Your task to perform on an android device: toggle priority inbox in the gmail app Image 0: 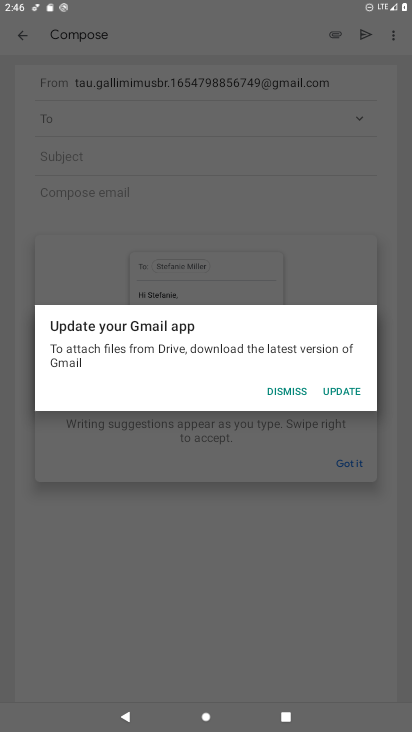
Step 0: press home button
Your task to perform on an android device: toggle priority inbox in the gmail app Image 1: 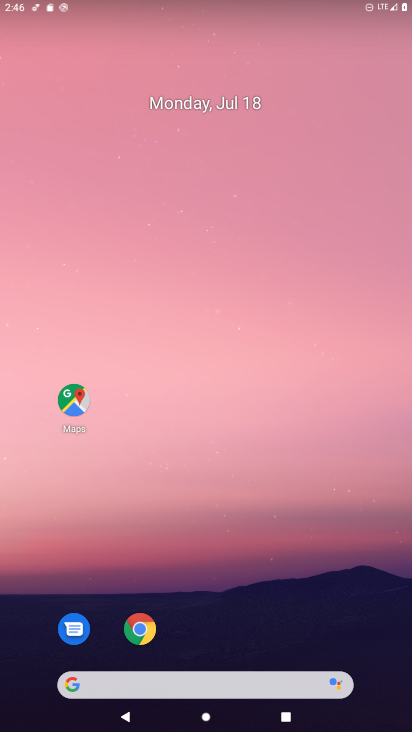
Step 1: drag from (169, 659) to (140, 234)
Your task to perform on an android device: toggle priority inbox in the gmail app Image 2: 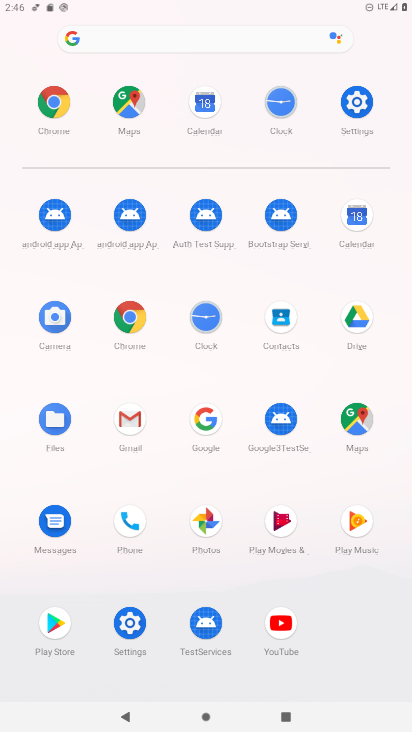
Step 2: click (119, 415)
Your task to perform on an android device: toggle priority inbox in the gmail app Image 3: 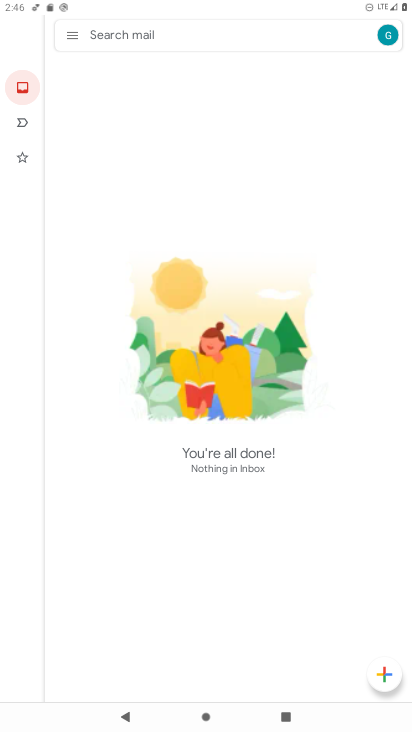
Step 3: click (72, 31)
Your task to perform on an android device: toggle priority inbox in the gmail app Image 4: 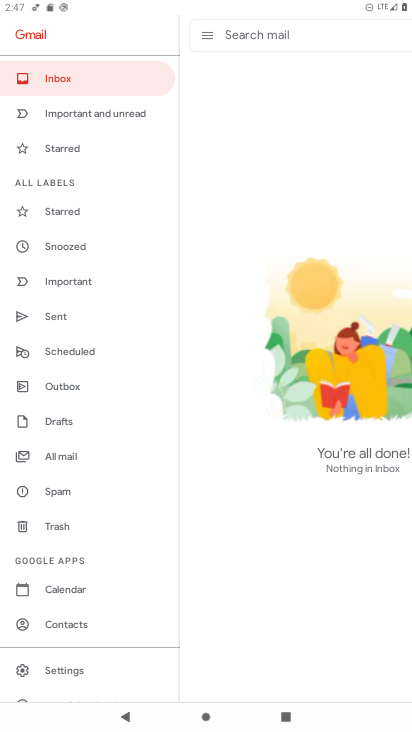
Step 4: click (70, 669)
Your task to perform on an android device: toggle priority inbox in the gmail app Image 5: 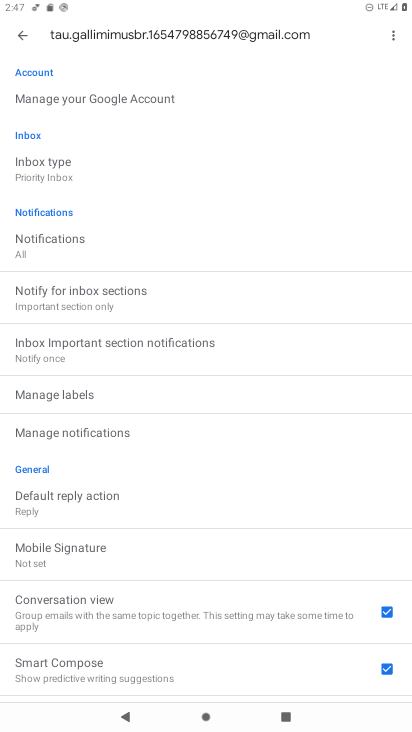
Step 5: click (42, 158)
Your task to perform on an android device: toggle priority inbox in the gmail app Image 6: 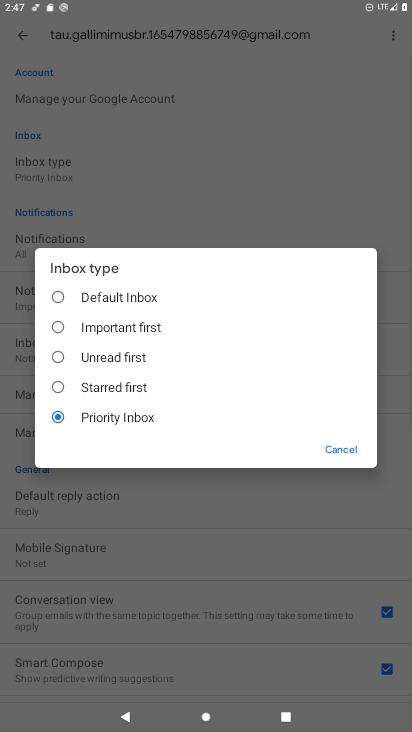
Step 6: click (87, 326)
Your task to perform on an android device: toggle priority inbox in the gmail app Image 7: 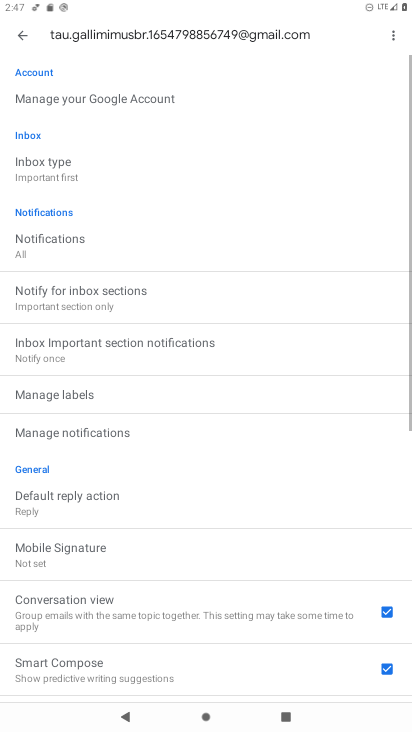
Step 7: task complete